Your task to perform on an android device: turn on airplane mode Image 0: 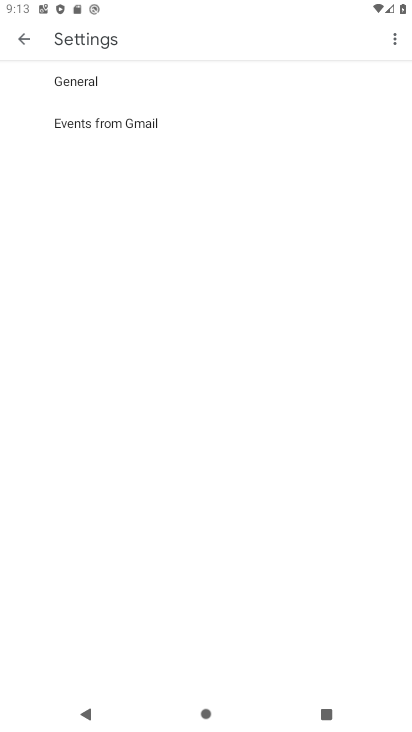
Step 0: drag from (319, 9) to (309, 622)
Your task to perform on an android device: turn on airplane mode Image 1: 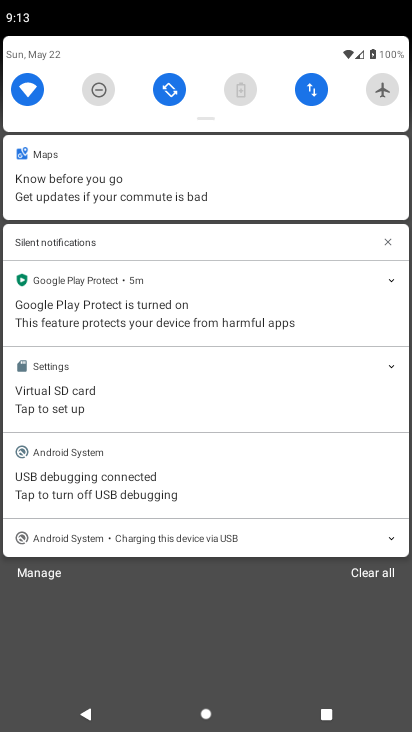
Step 1: click (390, 90)
Your task to perform on an android device: turn on airplane mode Image 2: 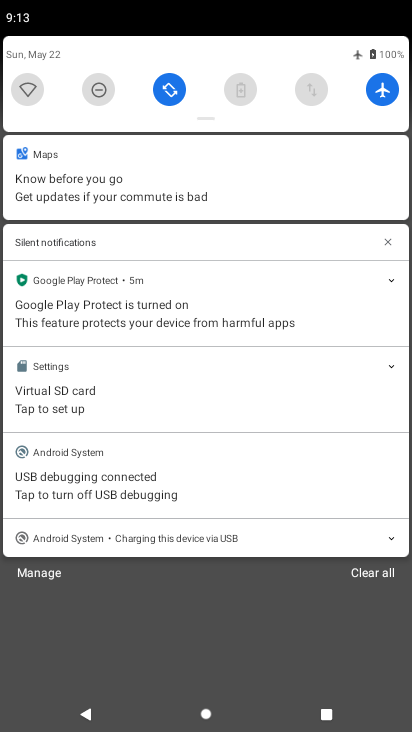
Step 2: task complete